Your task to perform on an android device: open app "Cash App" (install if not already installed) and go to login screen Image 0: 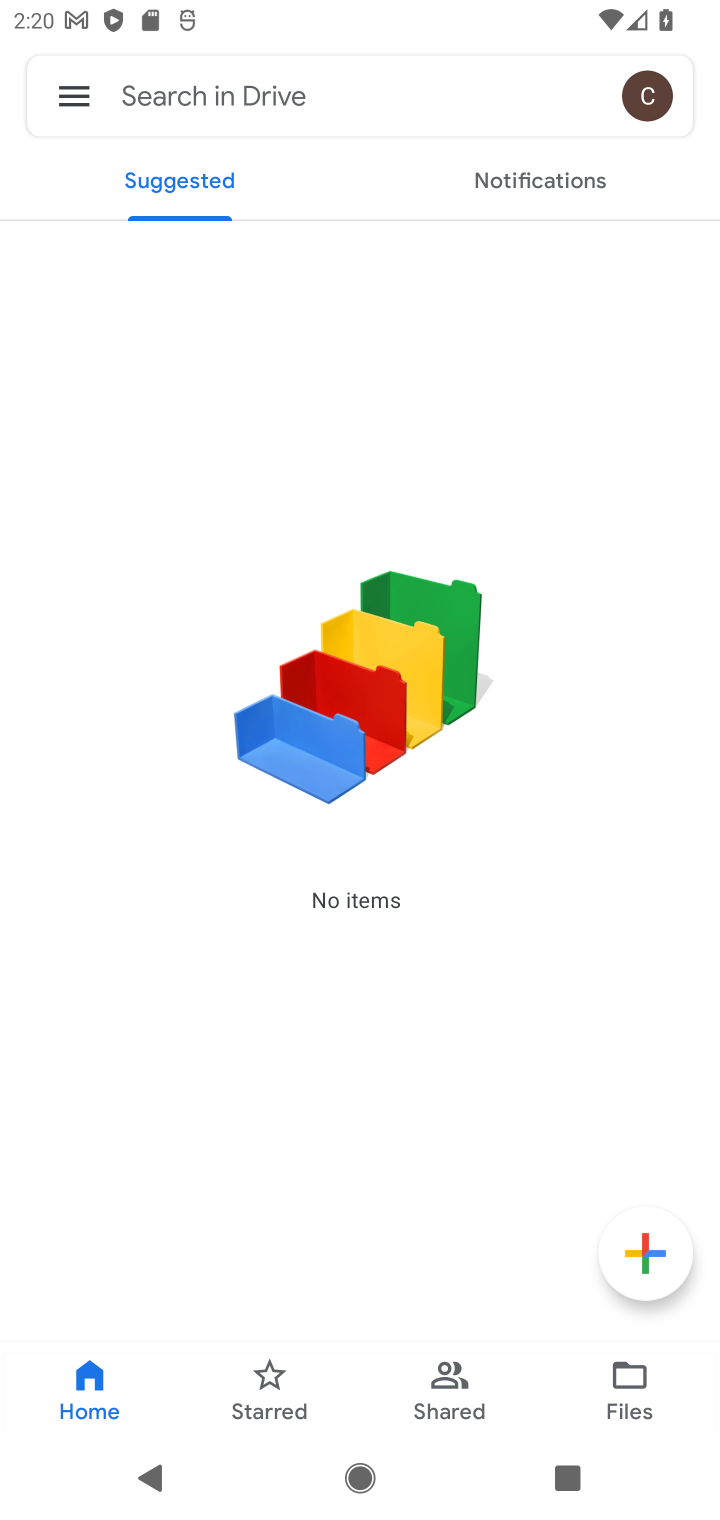
Step 0: press home button
Your task to perform on an android device: open app "Cash App" (install if not already installed) and go to login screen Image 1: 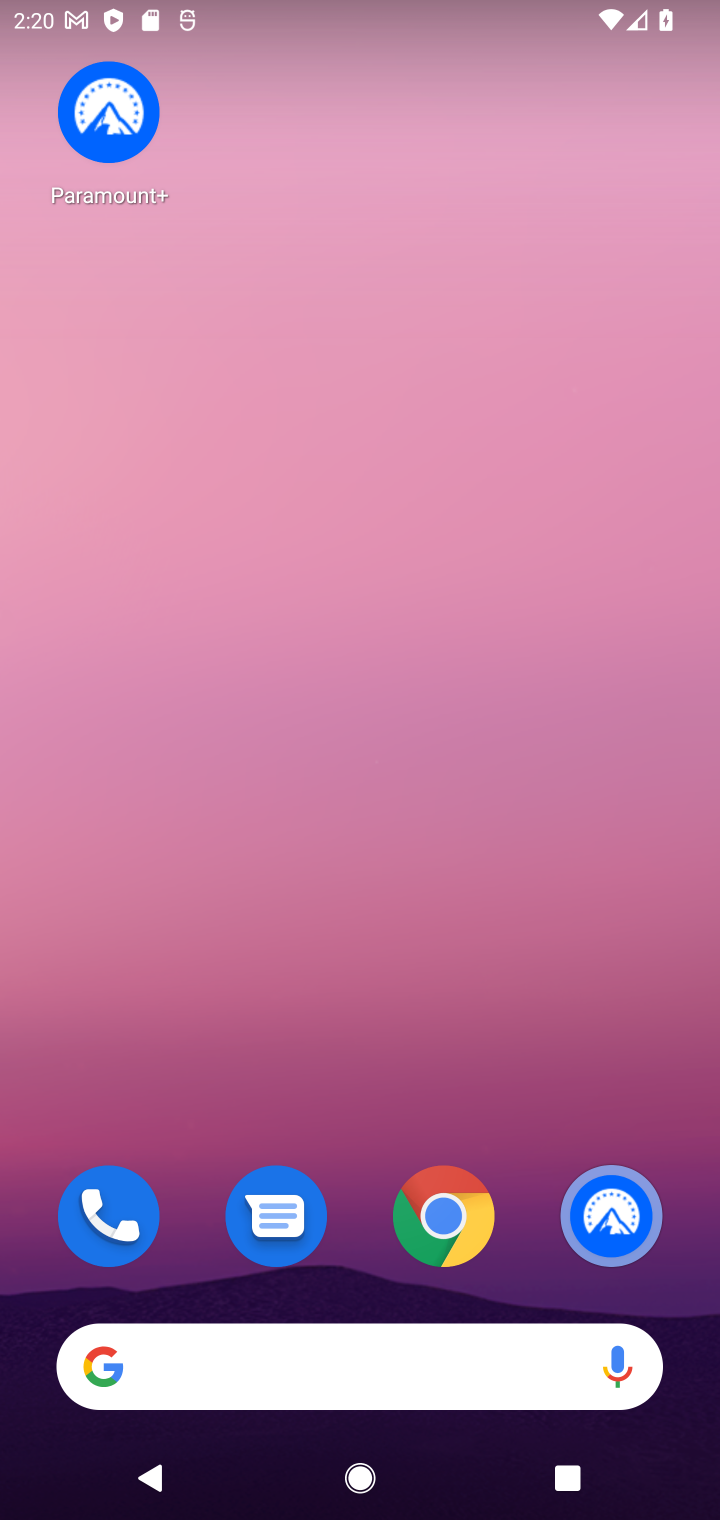
Step 1: drag from (272, 1324) to (453, 562)
Your task to perform on an android device: open app "Cash App" (install if not already installed) and go to login screen Image 2: 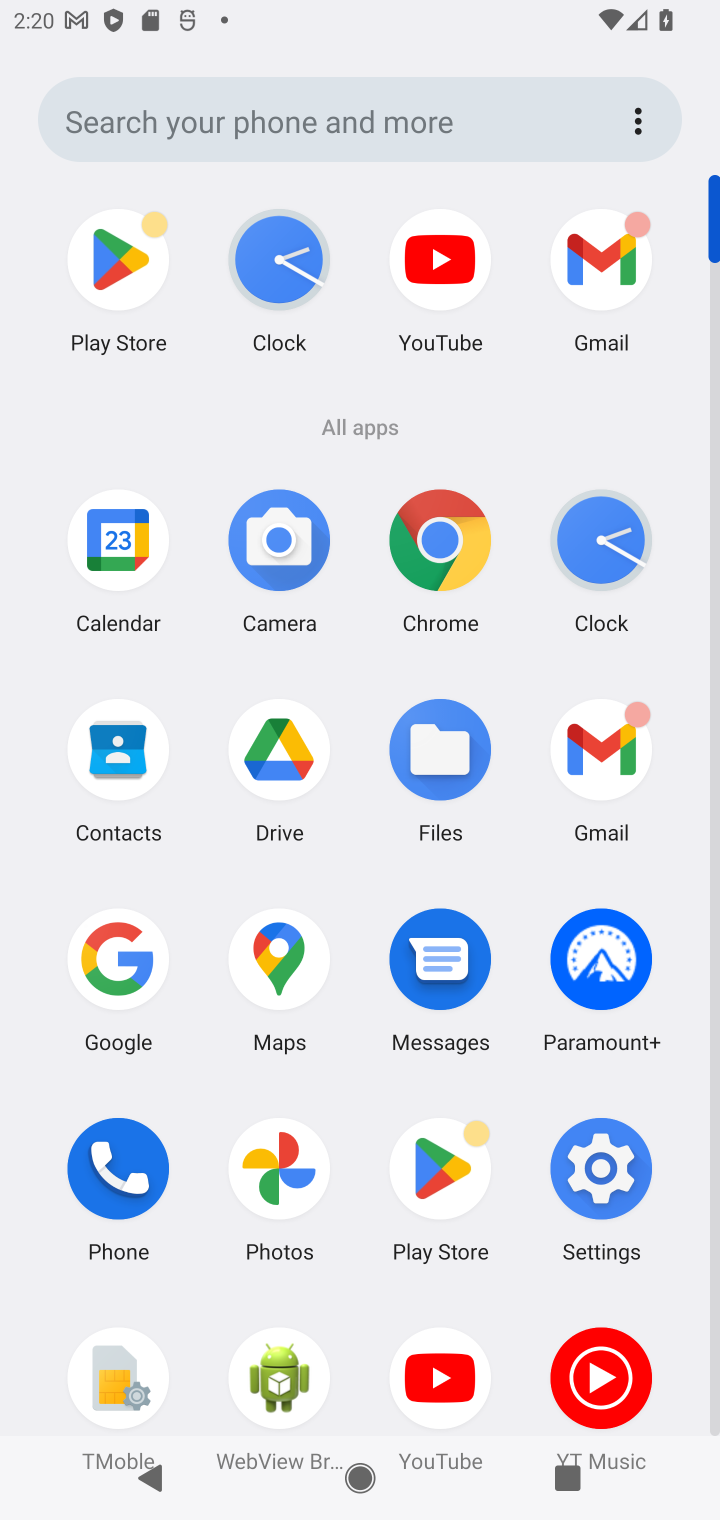
Step 2: click (426, 1154)
Your task to perform on an android device: open app "Cash App" (install if not already installed) and go to login screen Image 3: 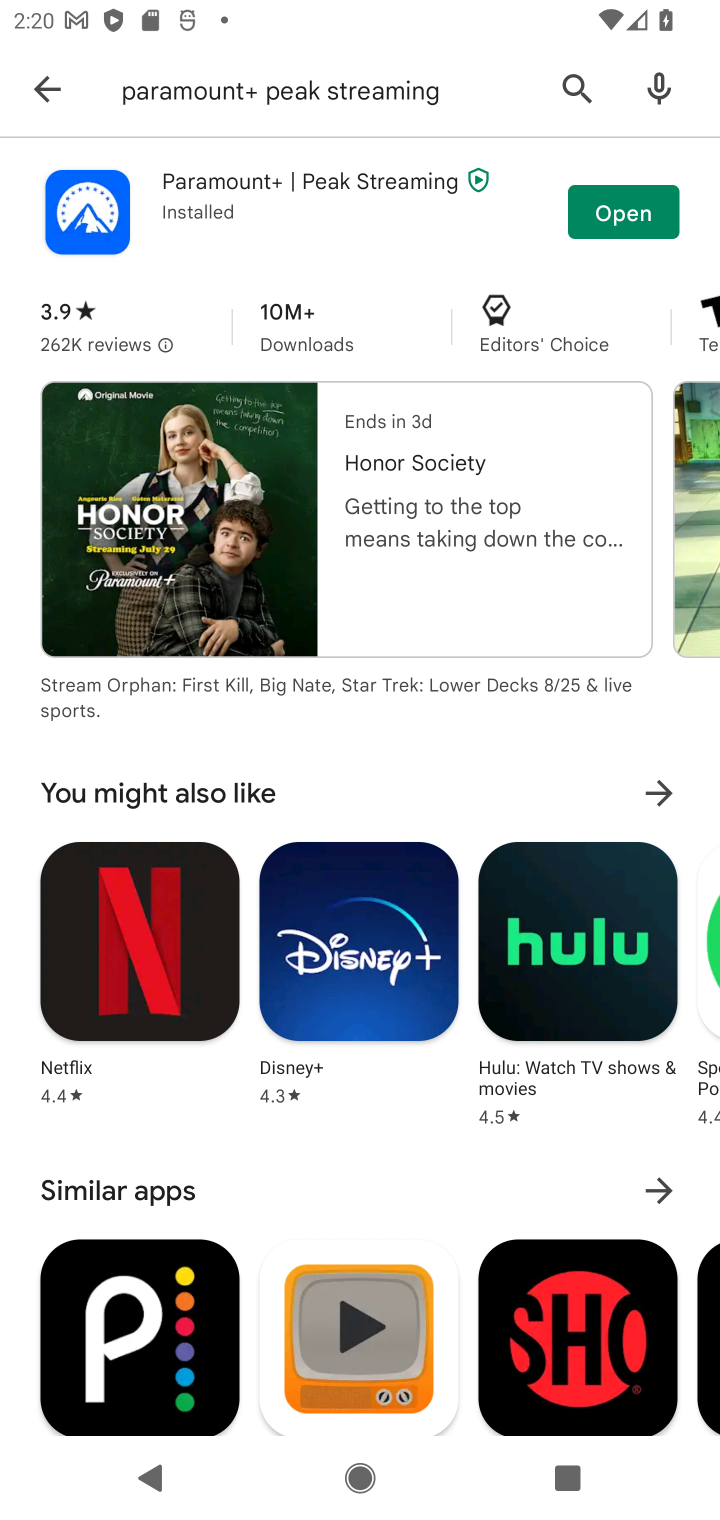
Step 3: click (69, 79)
Your task to perform on an android device: open app "Cash App" (install if not already installed) and go to login screen Image 4: 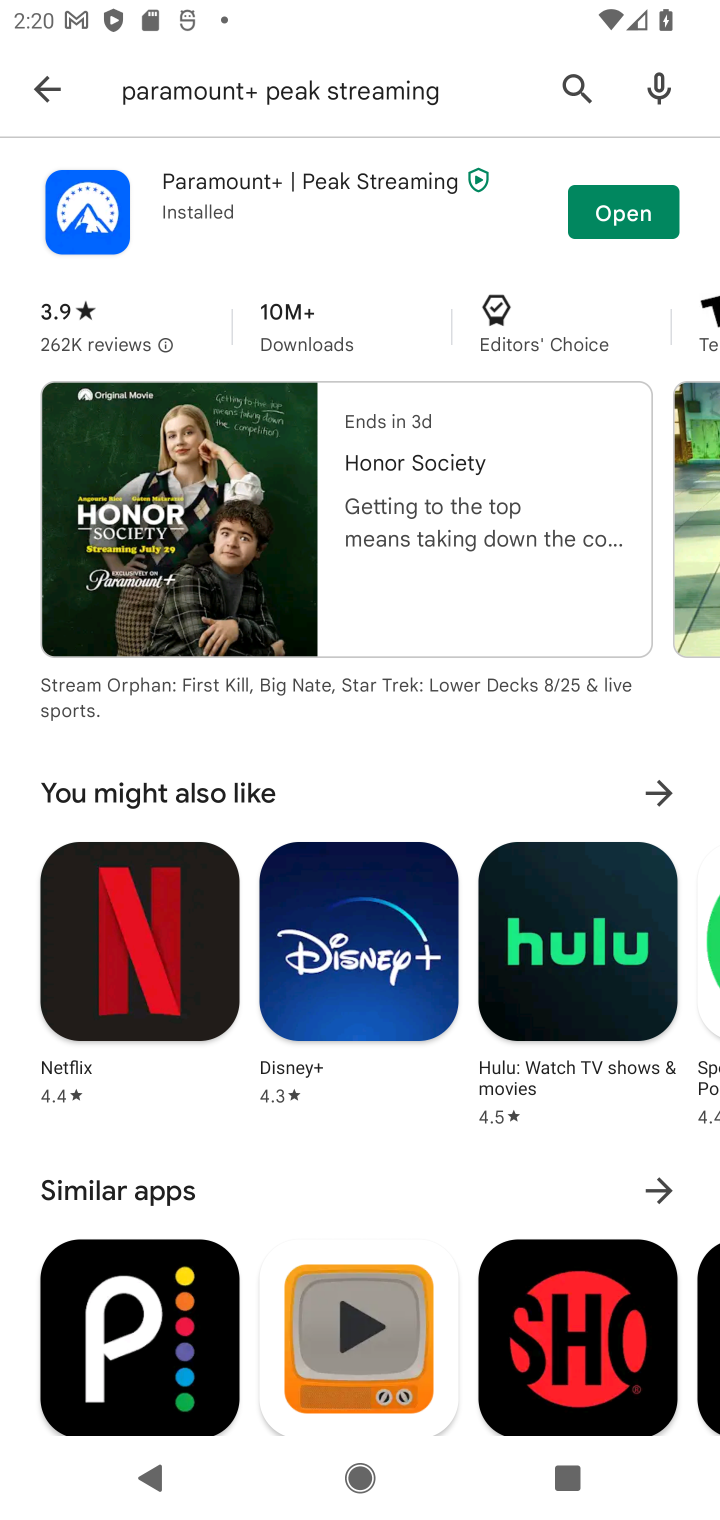
Step 4: click (51, 82)
Your task to perform on an android device: open app "Cash App" (install if not already installed) and go to login screen Image 5: 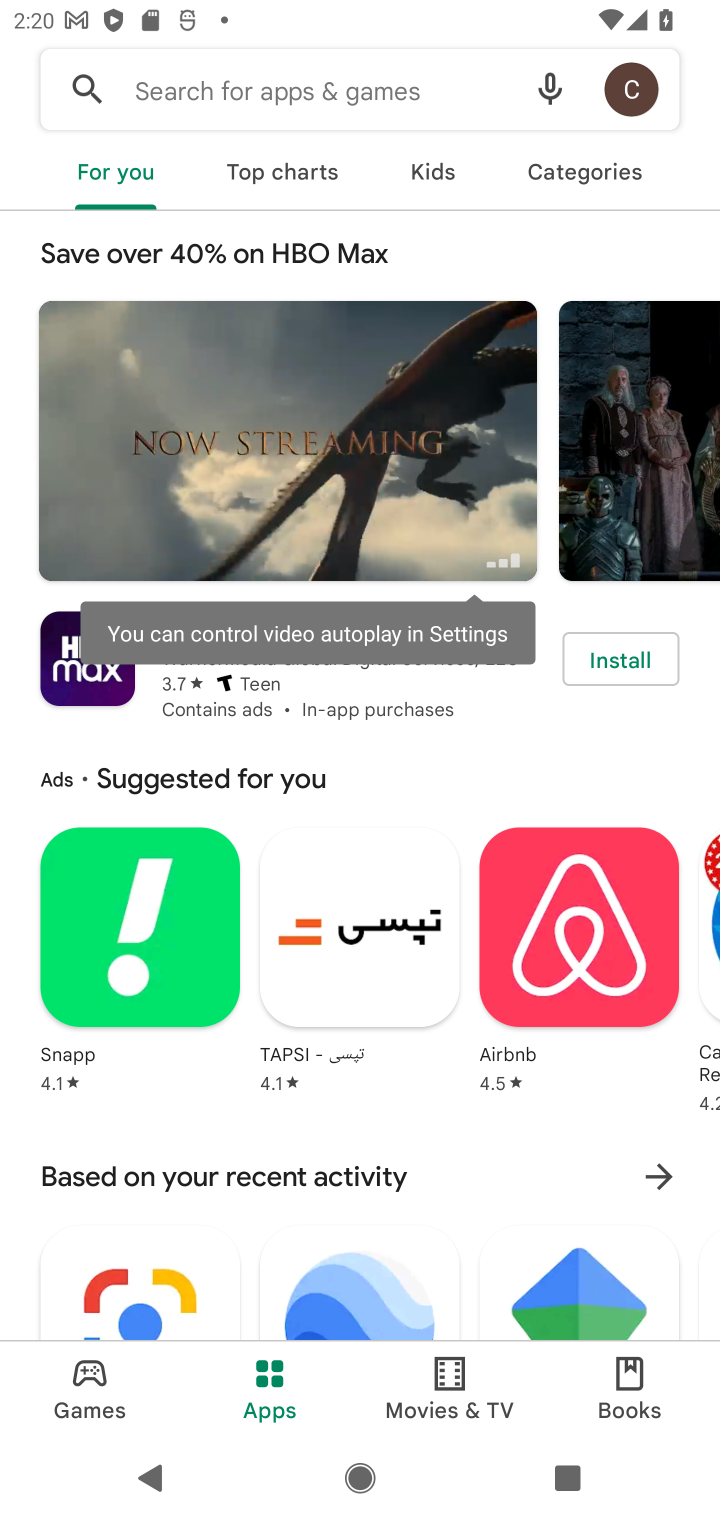
Step 5: click (181, 76)
Your task to perform on an android device: open app "Cash App" (install if not already installed) and go to login screen Image 6: 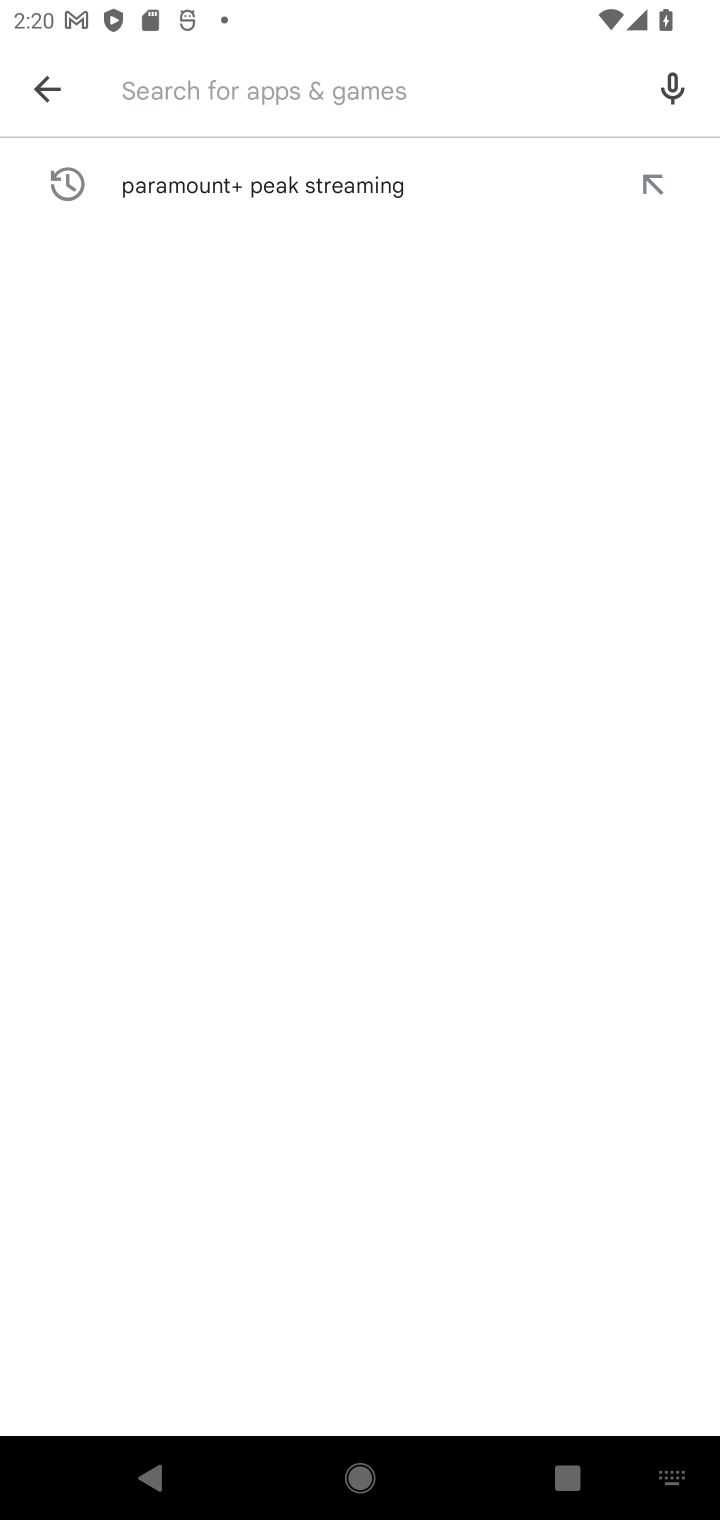
Step 6: type "Cash App "
Your task to perform on an android device: open app "Cash App" (install if not already installed) and go to login screen Image 7: 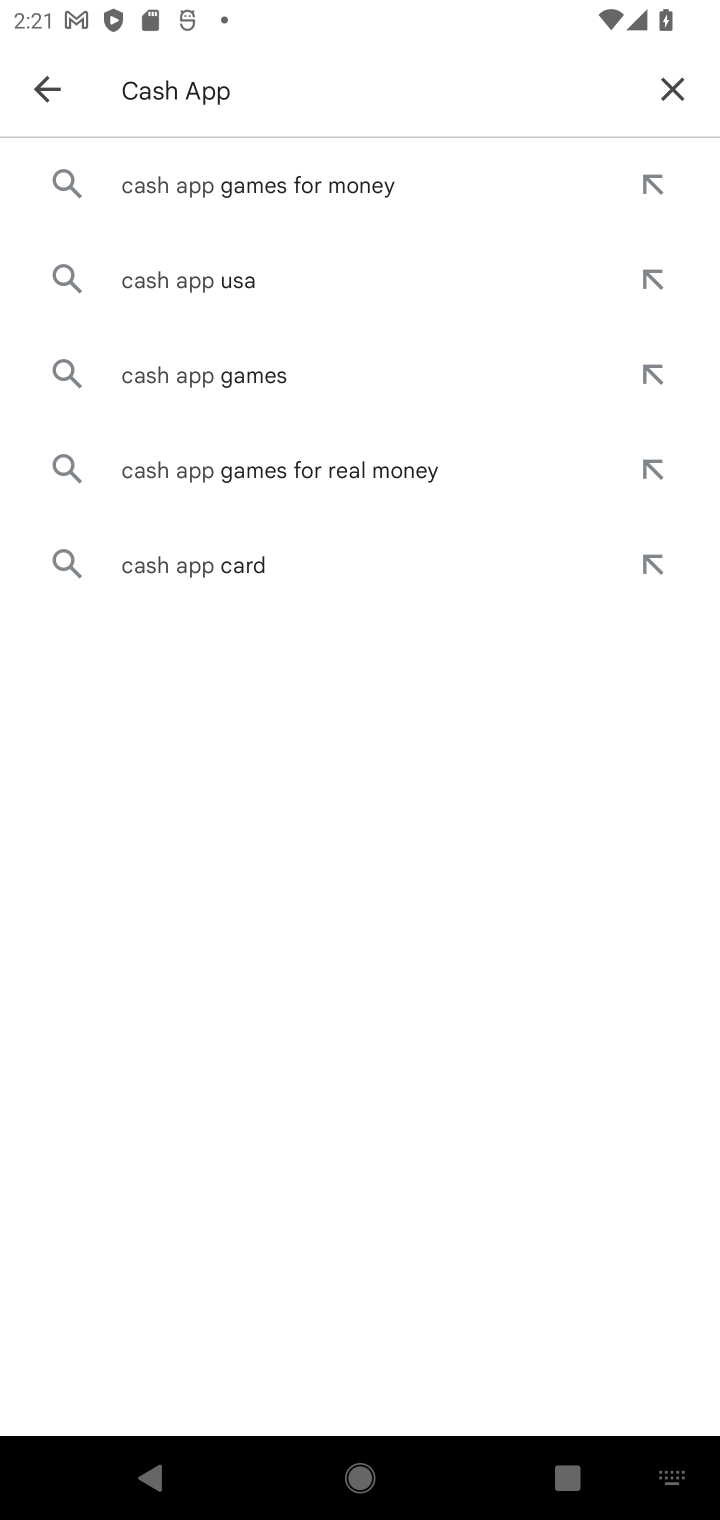
Step 7: click (178, 269)
Your task to perform on an android device: open app "Cash App" (install if not already installed) and go to login screen Image 8: 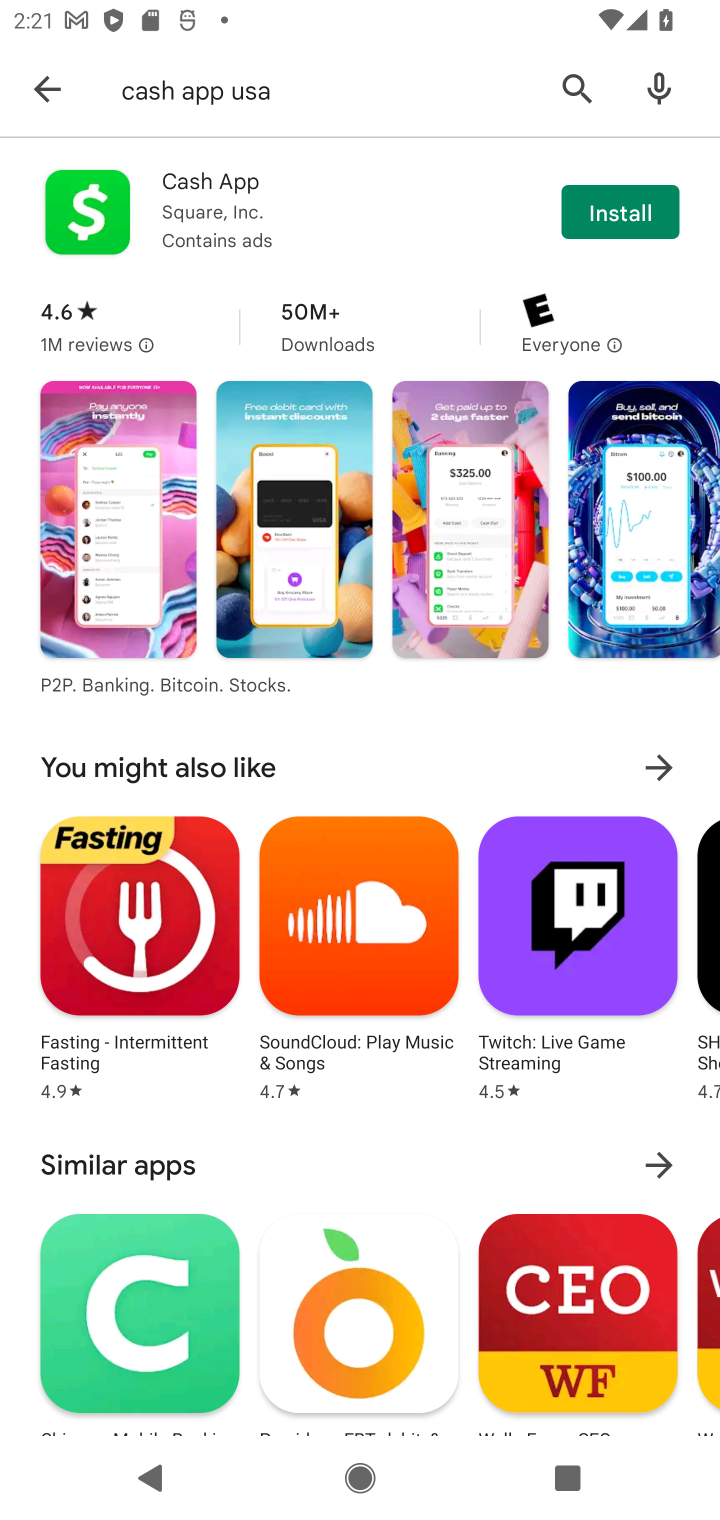
Step 8: click (625, 189)
Your task to perform on an android device: open app "Cash App" (install if not already installed) and go to login screen Image 9: 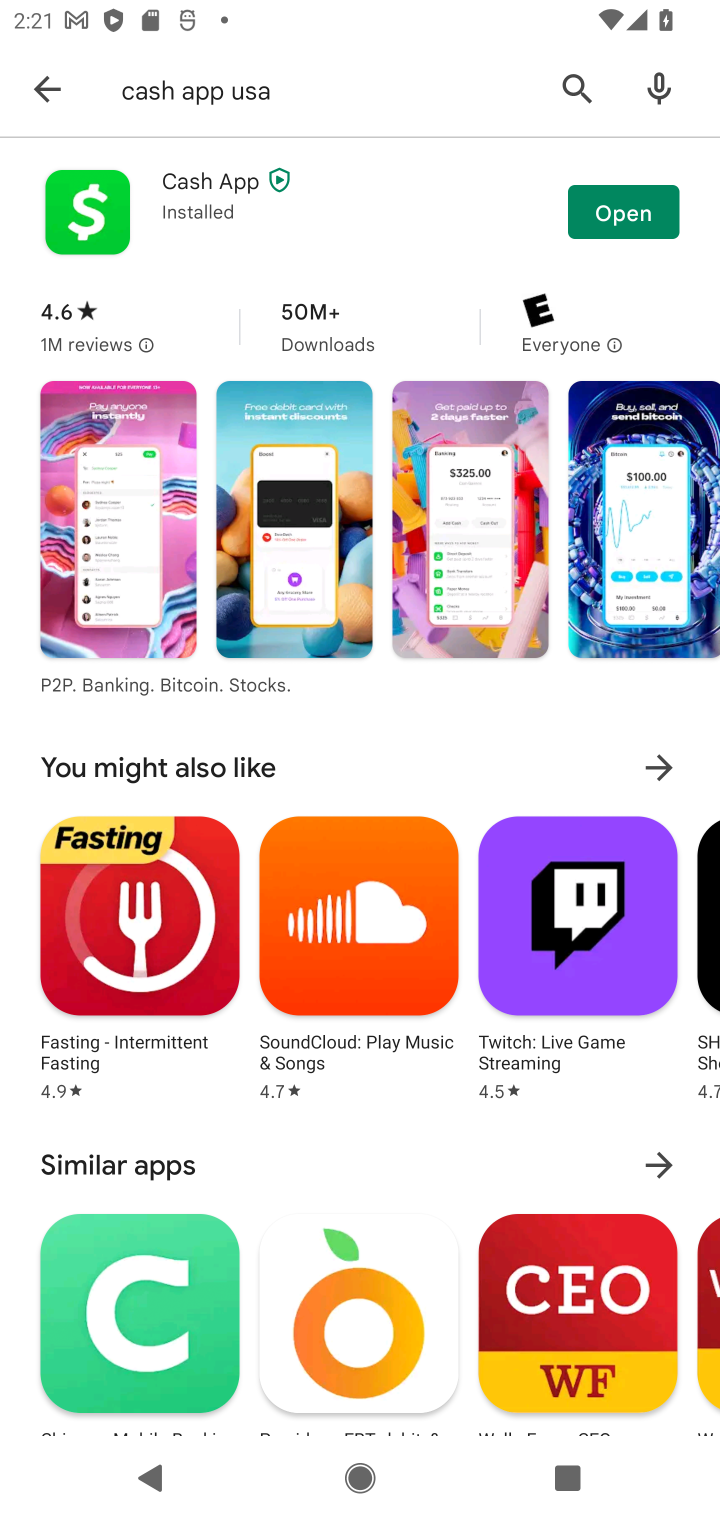
Step 9: click (654, 203)
Your task to perform on an android device: open app "Cash App" (install if not already installed) and go to login screen Image 10: 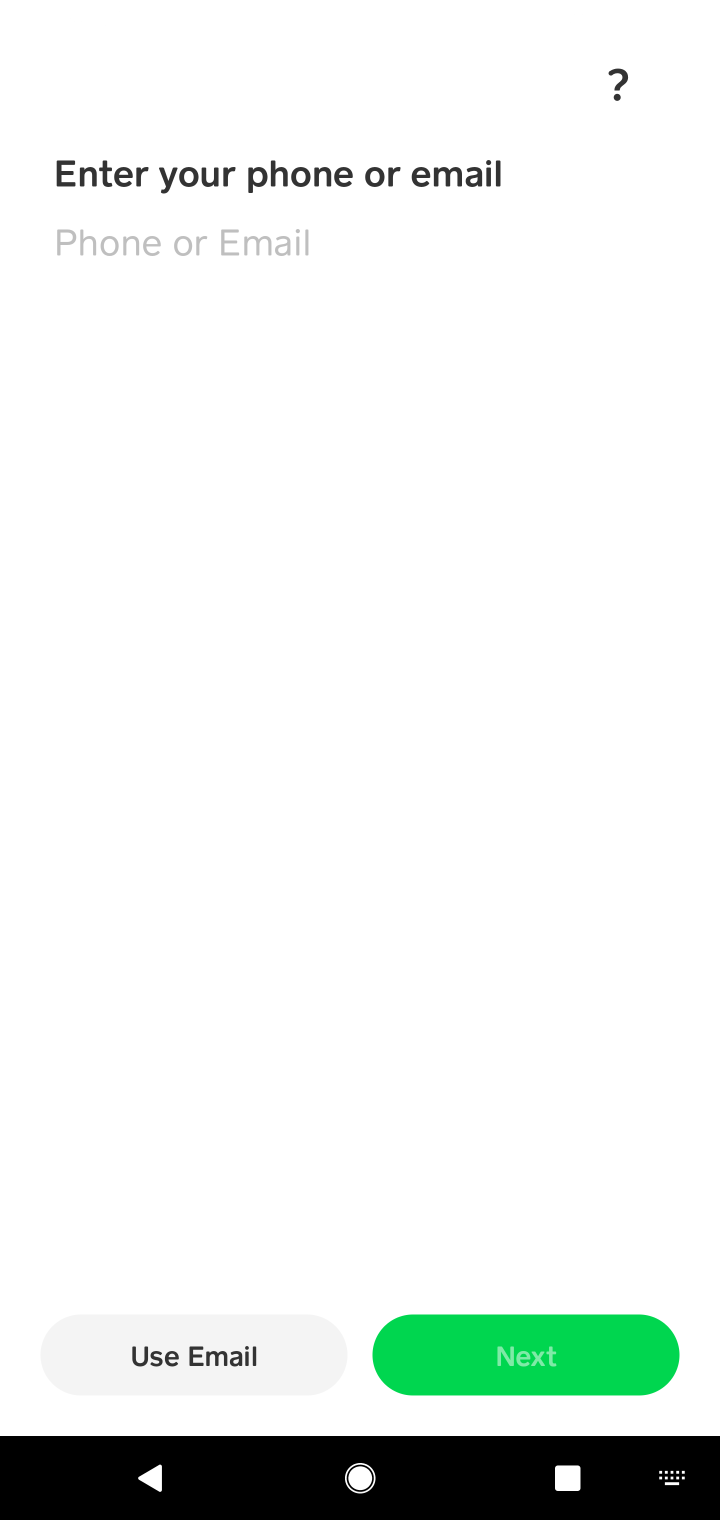
Step 10: task complete